Your task to perform on an android device: turn off wifi Image 0: 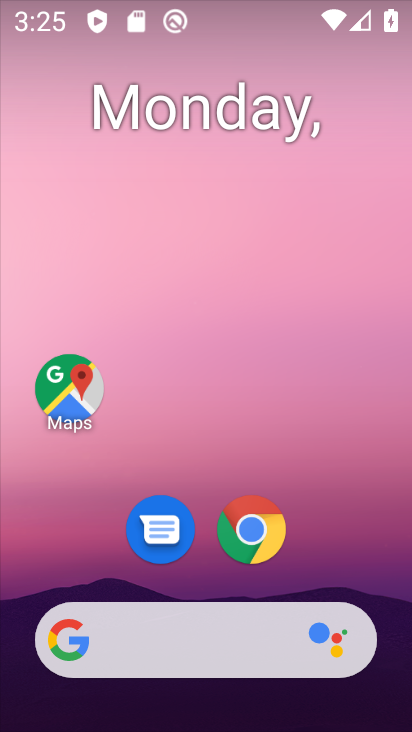
Step 0: drag from (294, 582) to (400, 271)
Your task to perform on an android device: turn off wifi Image 1: 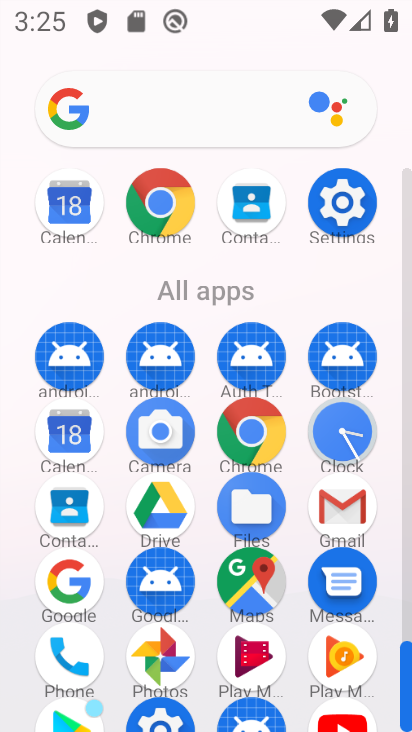
Step 1: click (349, 180)
Your task to perform on an android device: turn off wifi Image 2: 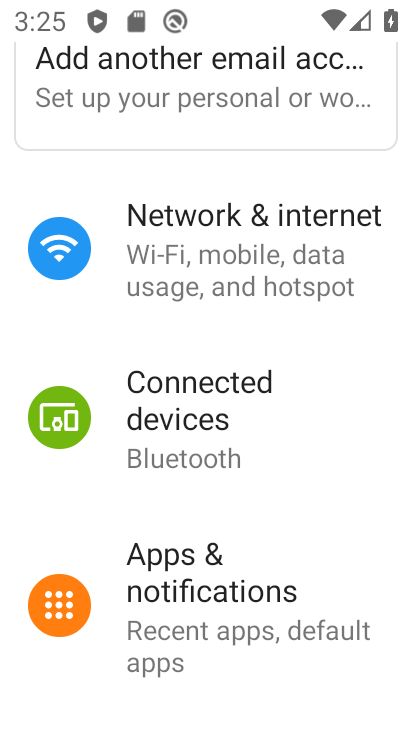
Step 2: click (263, 258)
Your task to perform on an android device: turn off wifi Image 3: 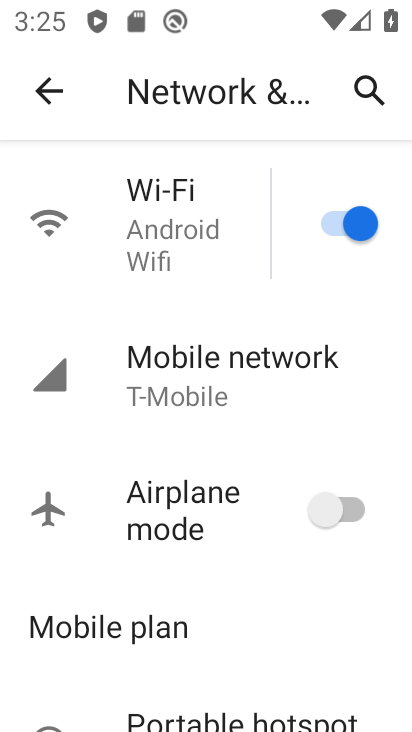
Step 3: click (321, 216)
Your task to perform on an android device: turn off wifi Image 4: 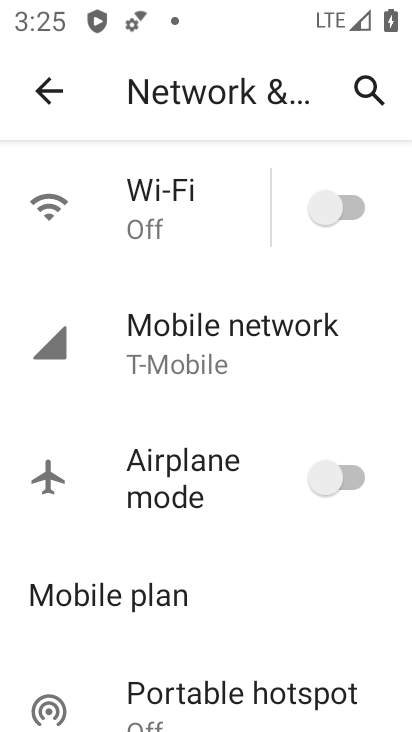
Step 4: task complete